Your task to perform on an android device: Go to accessibility settings Image 0: 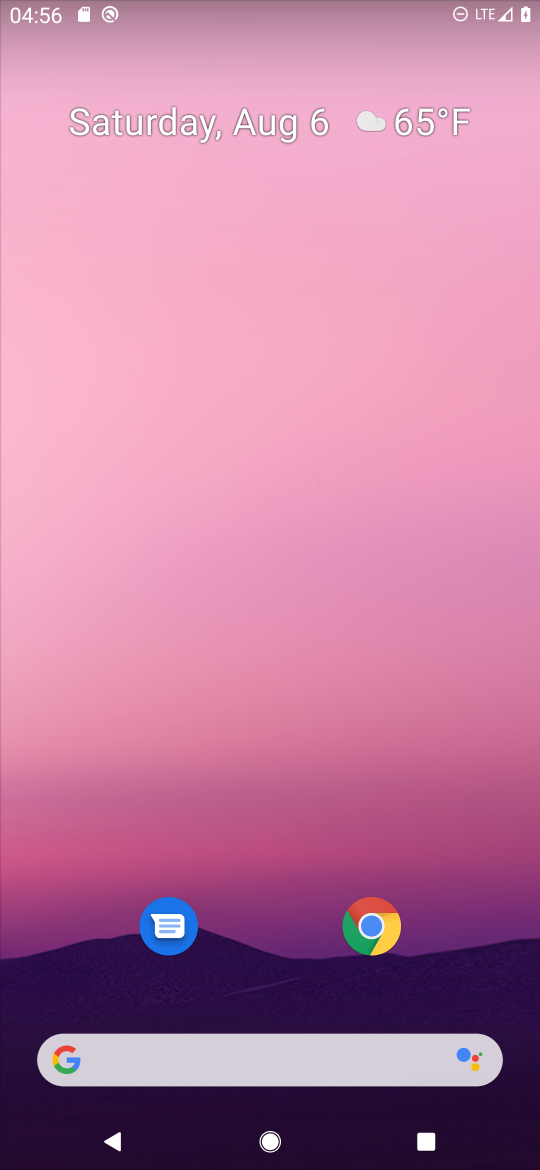
Step 0: drag from (260, 905) to (276, 335)
Your task to perform on an android device: Go to accessibility settings Image 1: 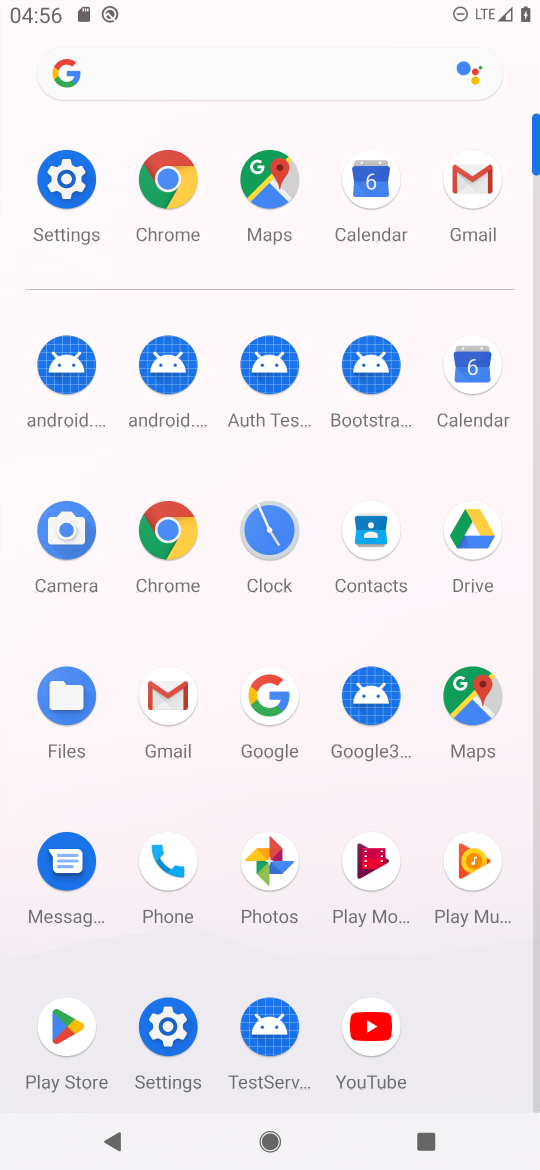
Step 1: click (65, 184)
Your task to perform on an android device: Go to accessibility settings Image 2: 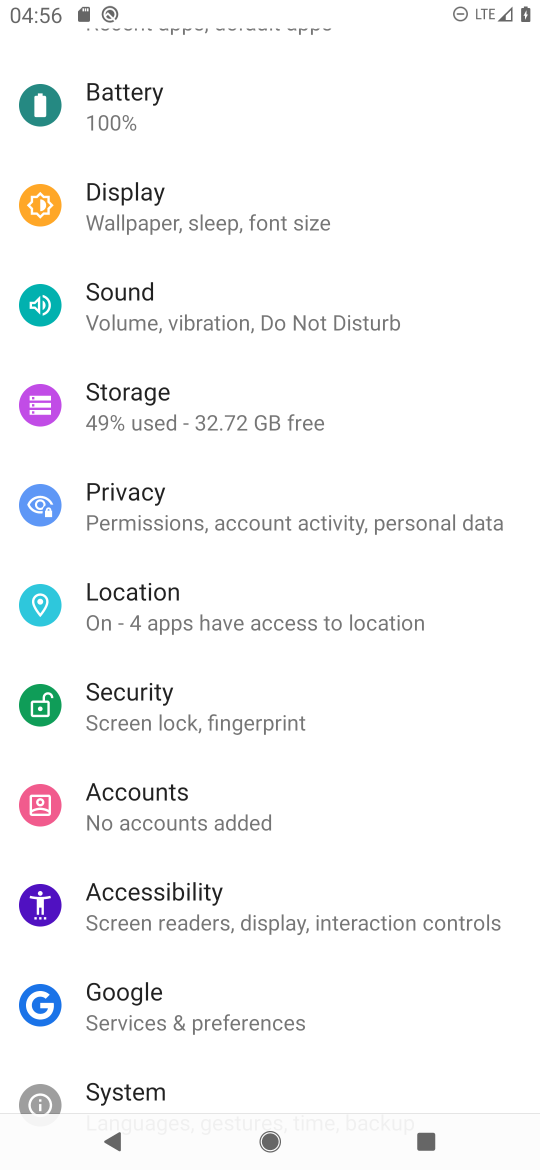
Step 2: click (288, 910)
Your task to perform on an android device: Go to accessibility settings Image 3: 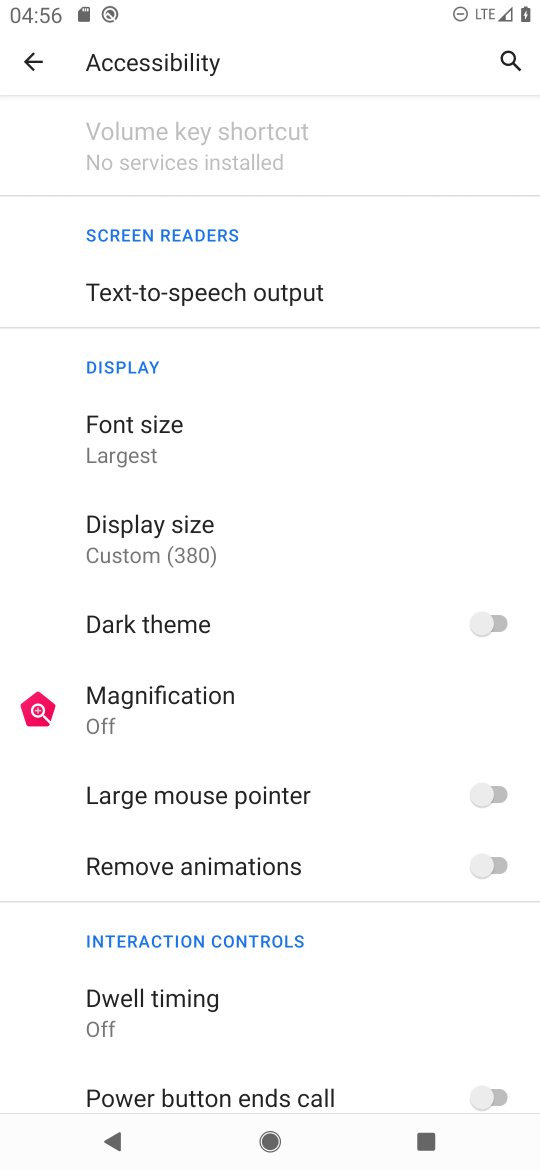
Step 3: task complete